Your task to perform on an android device: turn vacation reply on in the gmail app Image 0: 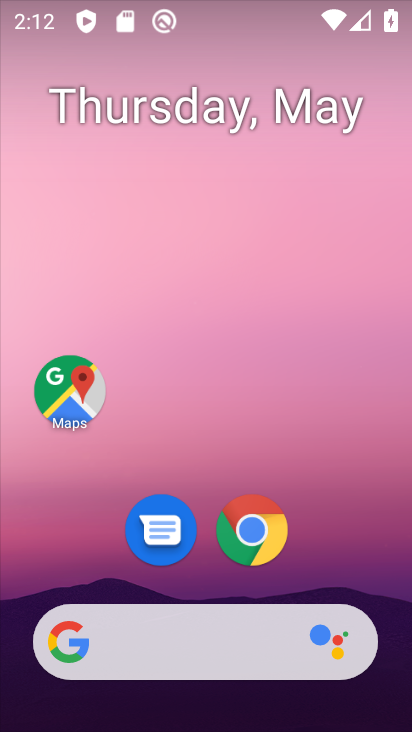
Step 0: drag from (205, 581) to (302, 133)
Your task to perform on an android device: turn vacation reply on in the gmail app Image 1: 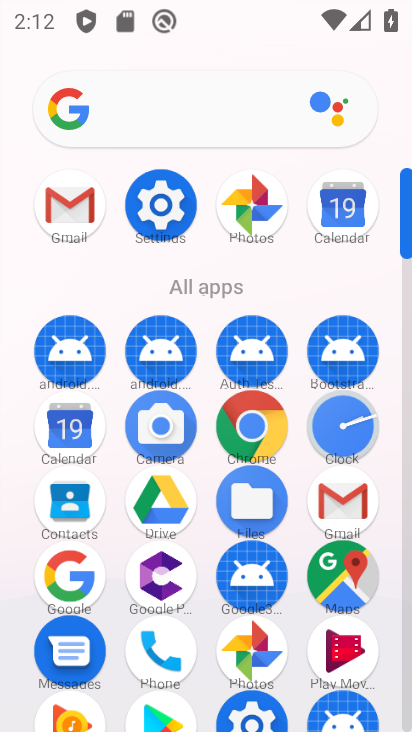
Step 1: click (77, 214)
Your task to perform on an android device: turn vacation reply on in the gmail app Image 2: 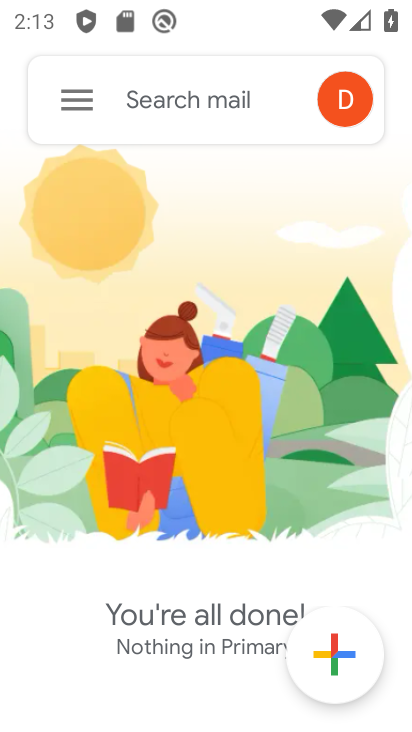
Step 2: click (80, 96)
Your task to perform on an android device: turn vacation reply on in the gmail app Image 3: 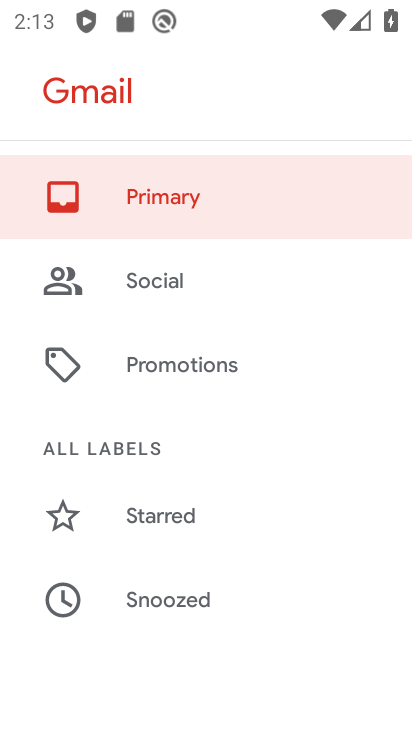
Step 3: drag from (248, 570) to (349, 167)
Your task to perform on an android device: turn vacation reply on in the gmail app Image 4: 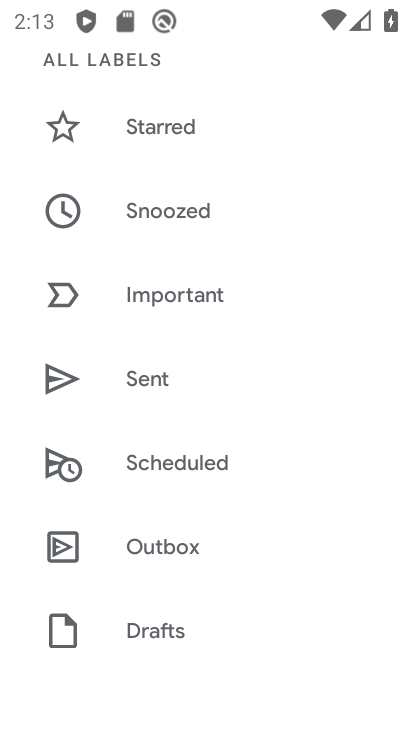
Step 4: drag from (229, 652) to (312, 110)
Your task to perform on an android device: turn vacation reply on in the gmail app Image 5: 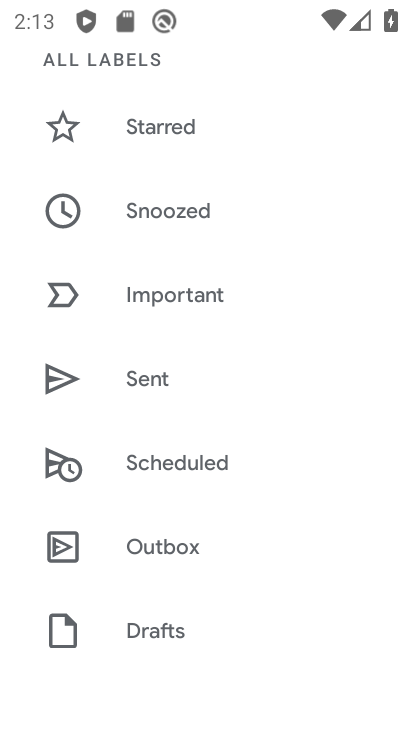
Step 5: drag from (167, 606) to (320, 143)
Your task to perform on an android device: turn vacation reply on in the gmail app Image 6: 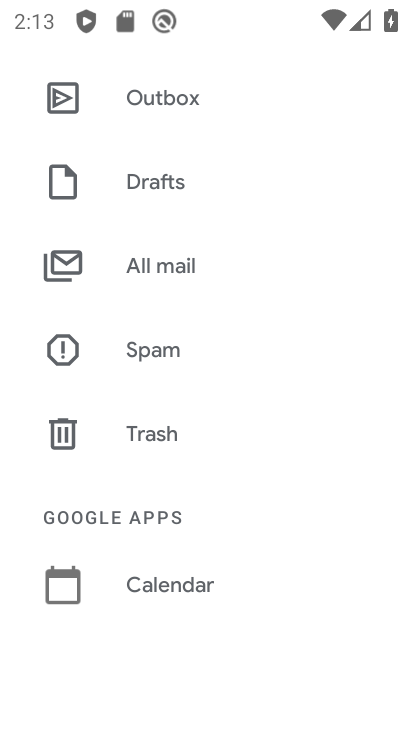
Step 6: drag from (196, 636) to (332, 175)
Your task to perform on an android device: turn vacation reply on in the gmail app Image 7: 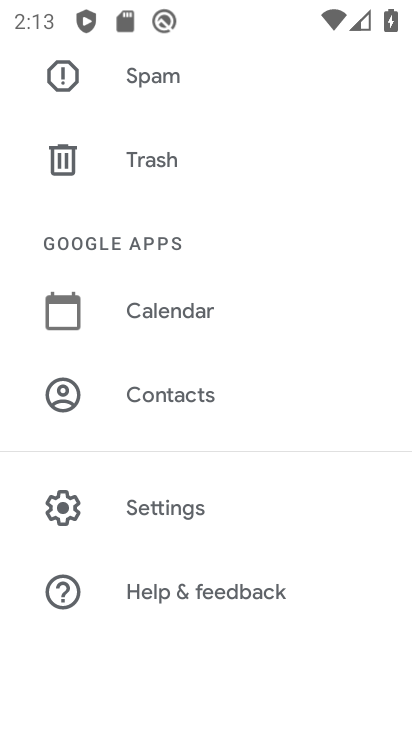
Step 7: click (191, 510)
Your task to perform on an android device: turn vacation reply on in the gmail app Image 8: 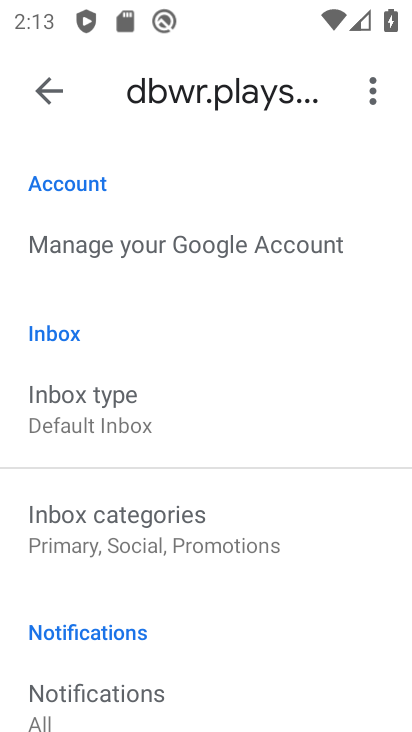
Step 8: drag from (204, 635) to (286, 151)
Your task to perform on an android device: turn vacation reply on in the gmail app Image 9: 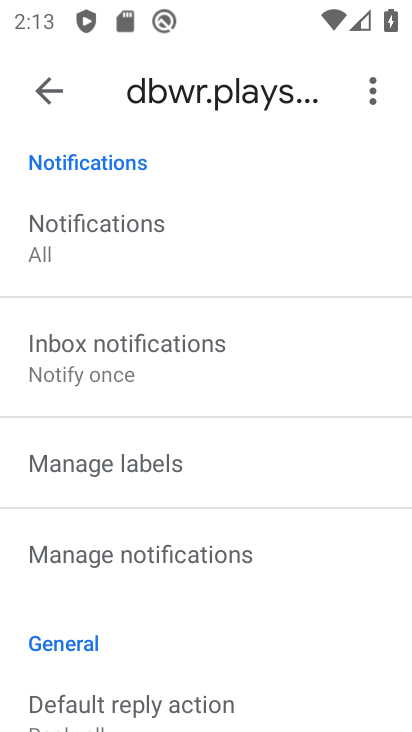
Step 9: drag from (210, 657) to (261, 150)
Your task to perform on an android device: turn vacation reply on in the gmail app Image 10: 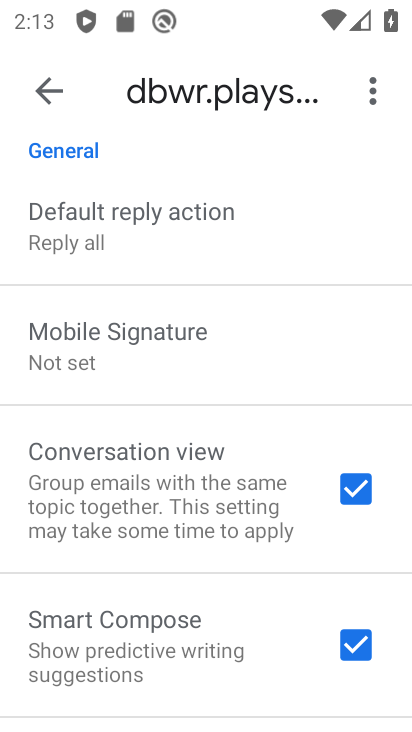
Step 10: drag from (203, 657) to (316, 125)
Your task to perform on an android device: turn vacation reply on in the gmail app Image 11: 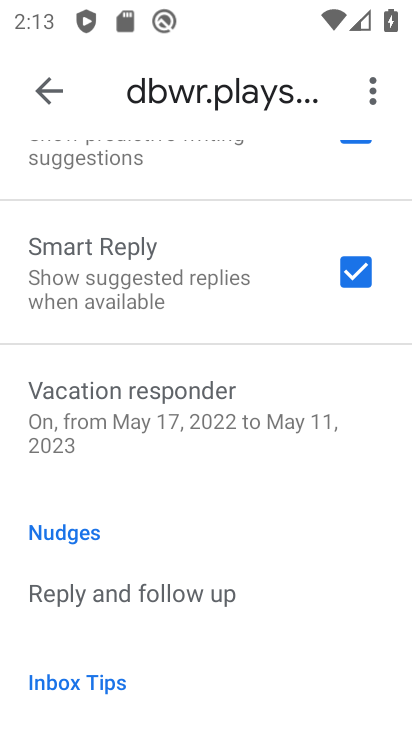
Step 11: click (201, 423)
Your task to perform on an android device: turn vacation reply on in the gmail app Image 12: 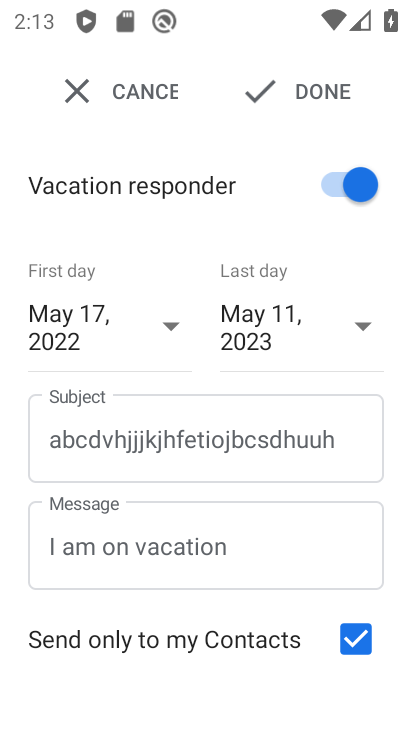
Step 12: task complete